Your task to perform on an android device: change the clock display to show seconds Image 0: 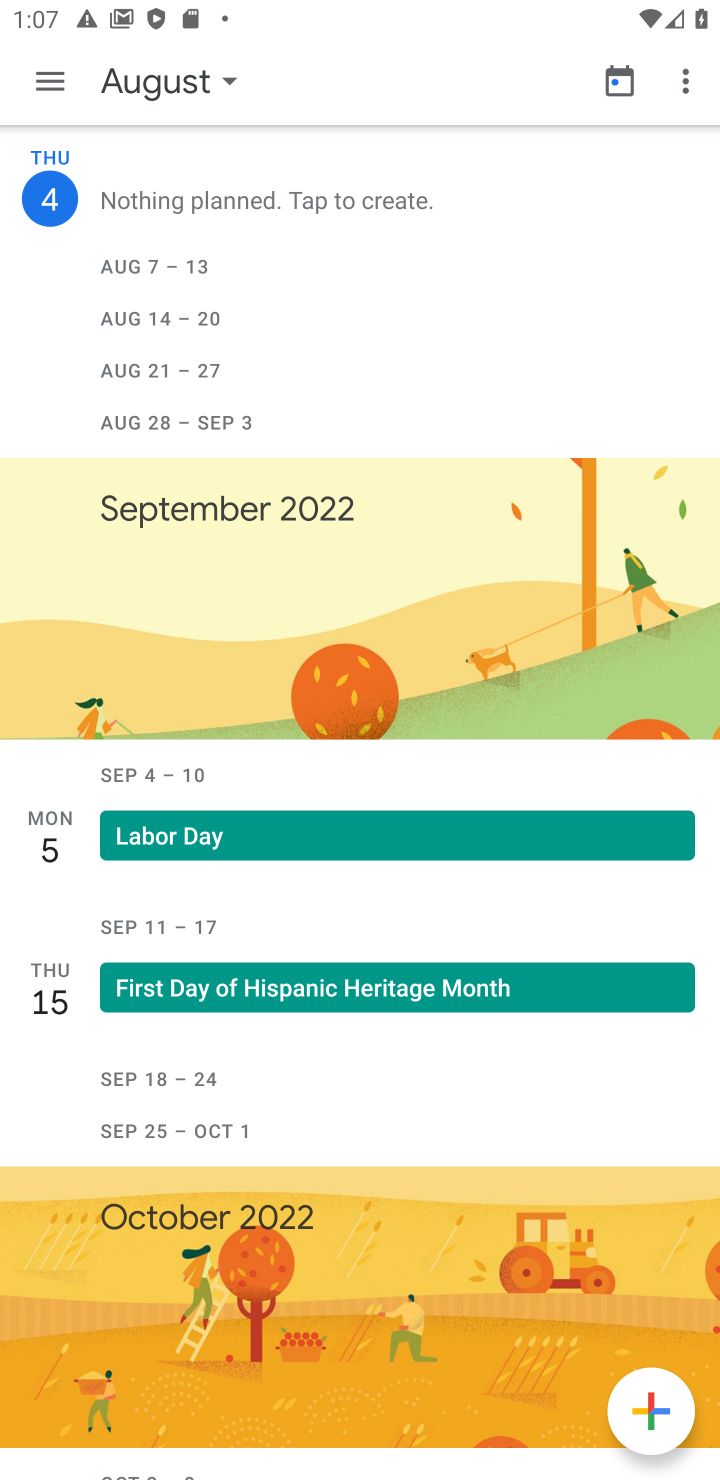
Step 0: press home button
Your task to perform on an android device: change the clock display to show seconds Image 1: 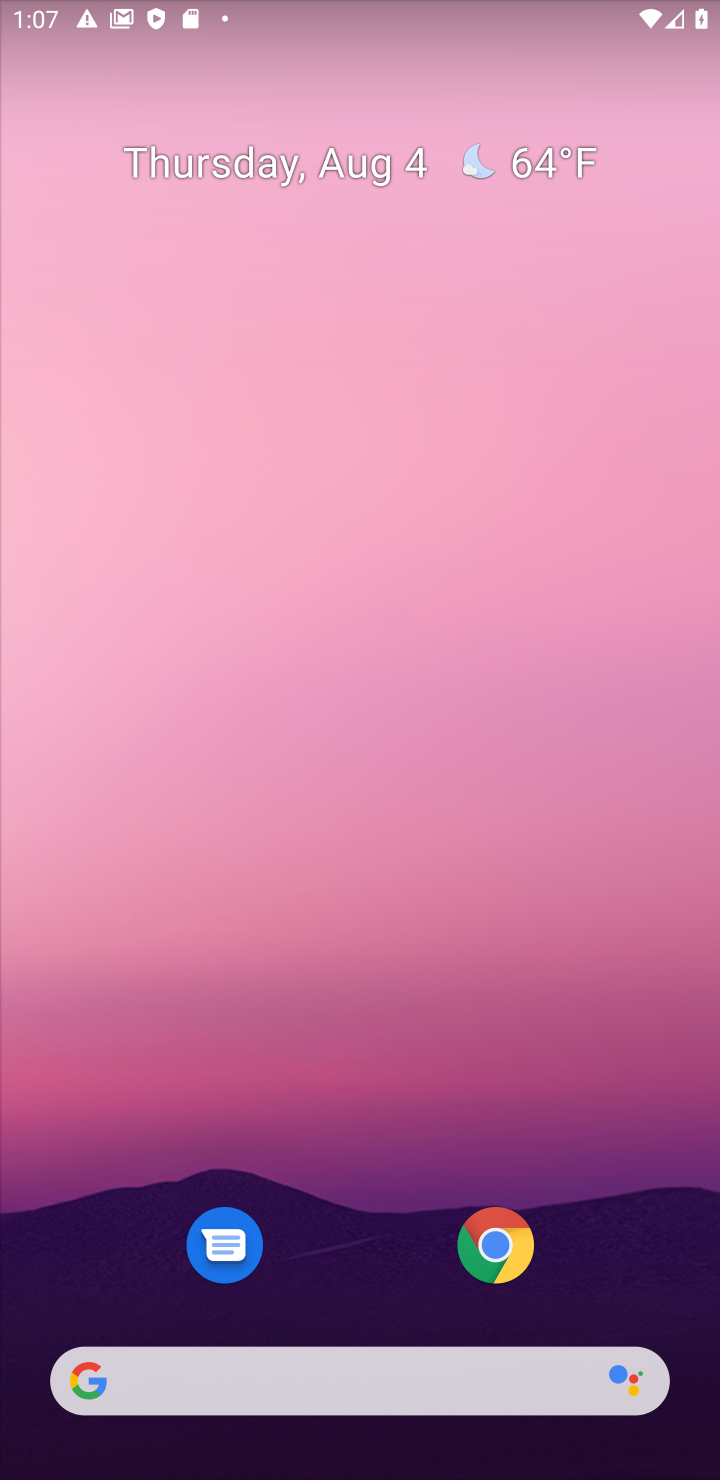
Step 1: drag from (337, 1011) to (259, 266)
Your task to perform on an android device: change the clock display to show seconds Image 2: 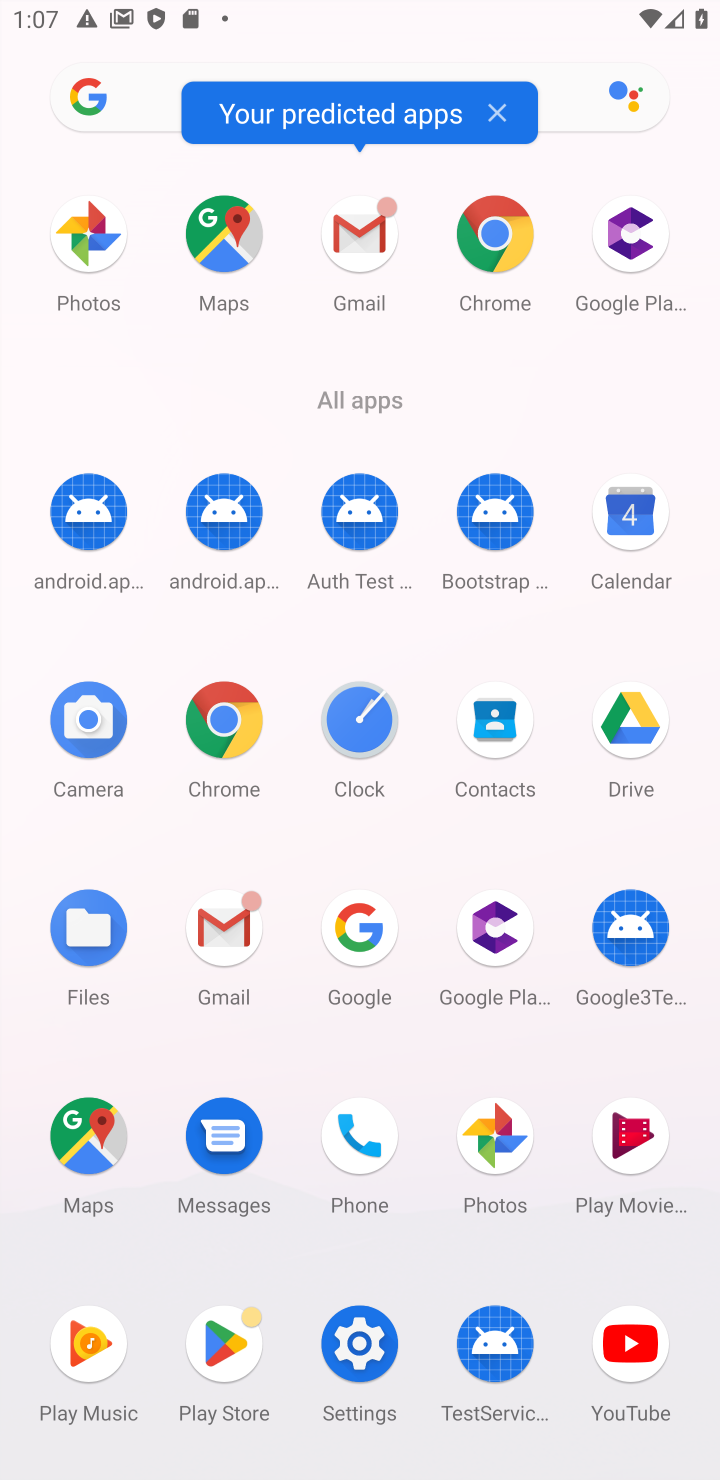
Step 2: click (376, 730)
Your task to perform on an android device: change the clock display to show seconds Image 3: 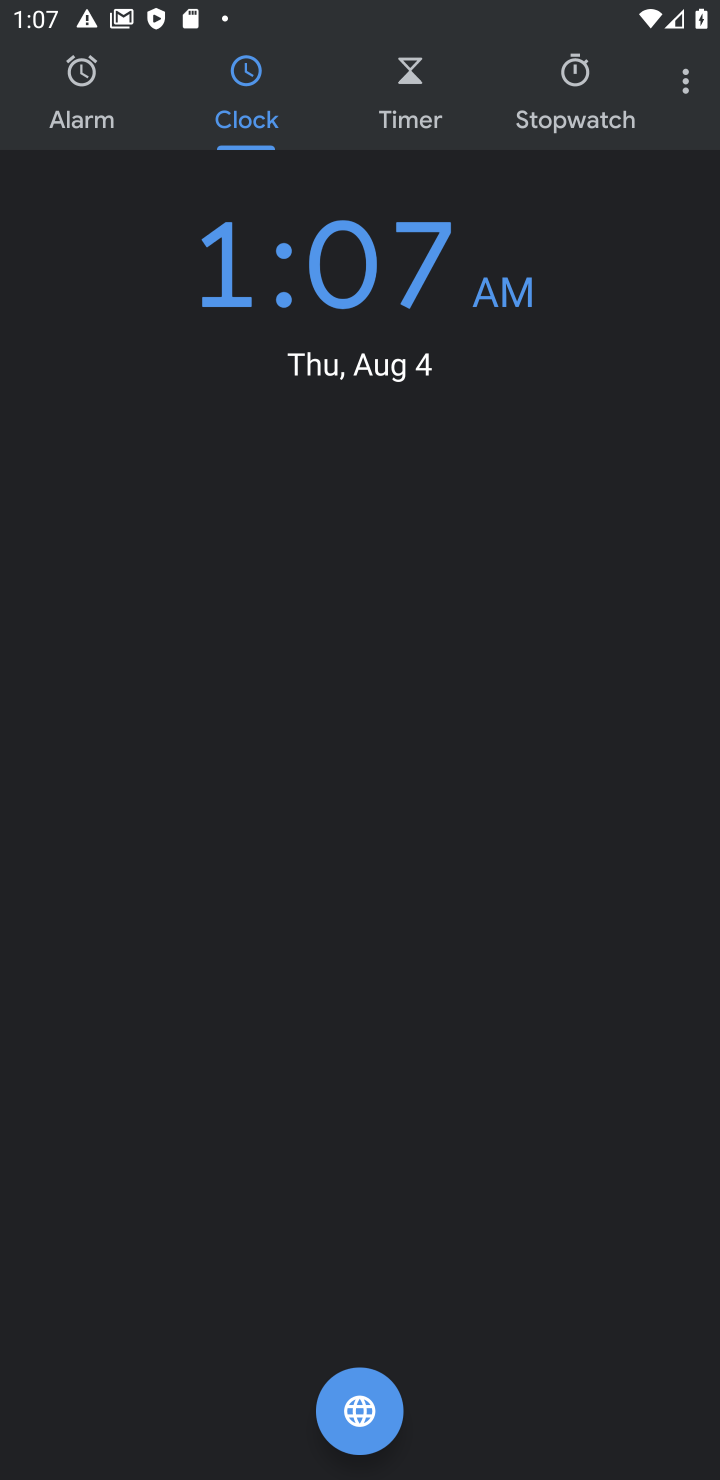
Step 3: click (687, 89)
Your task to perform on an android device: change the clock display to show seconds Image 4: 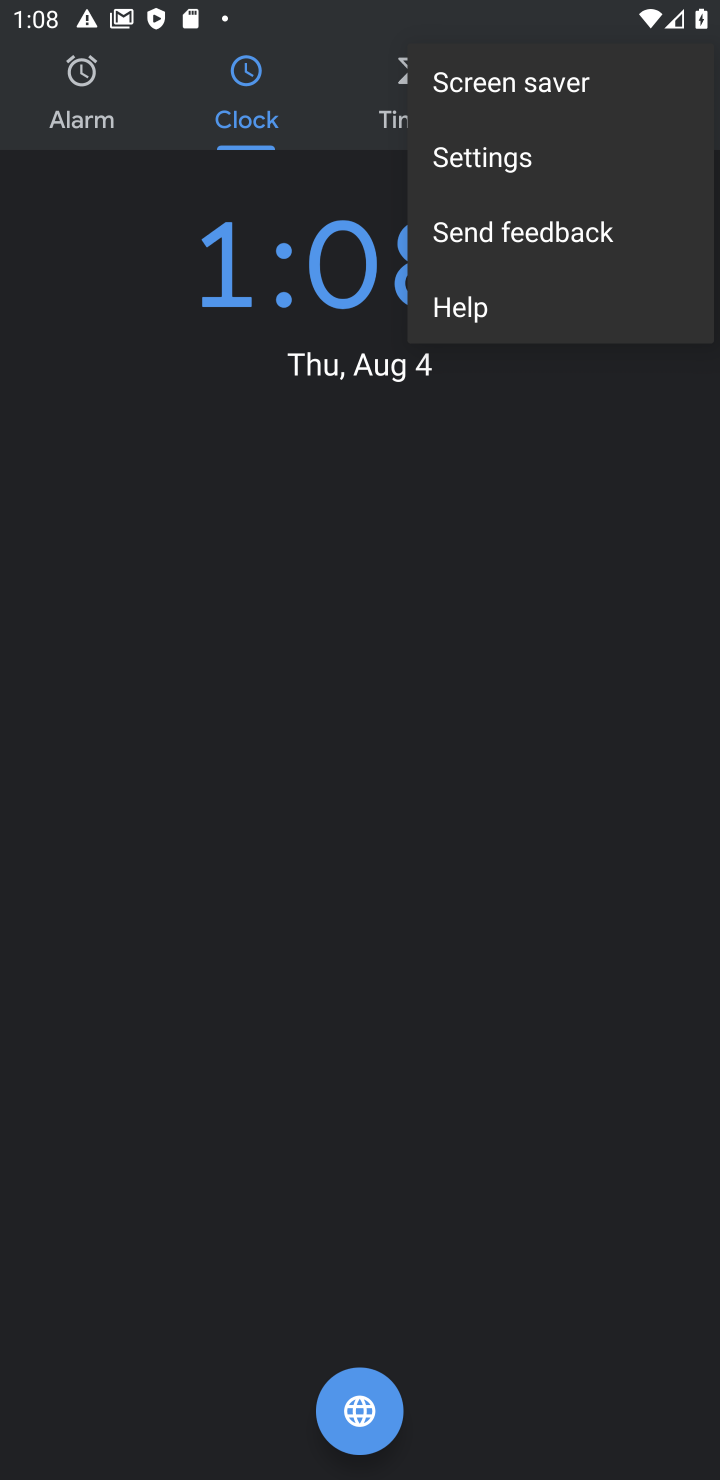
Step 4: click (530, 172)
Your task to perform on an android device: change the clock display to show seconds Image 5: 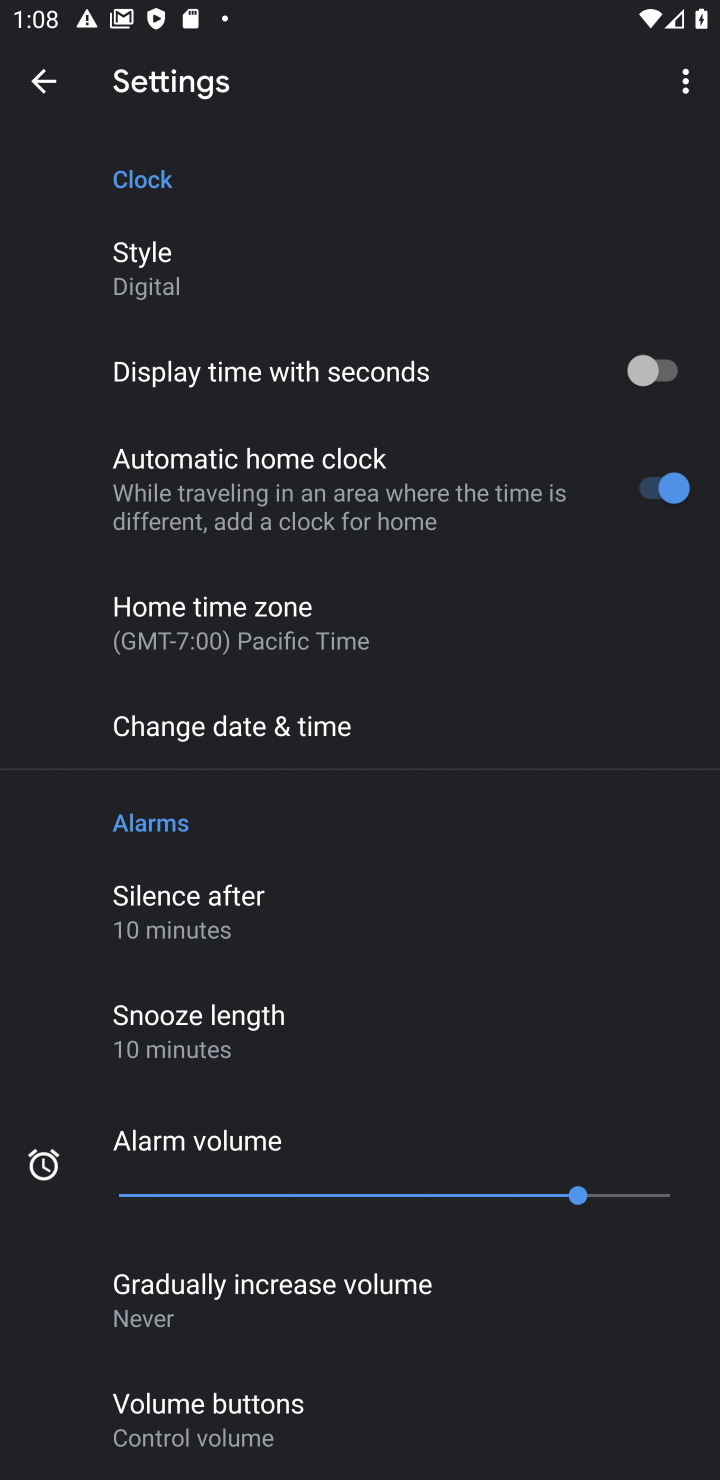
Step 5: click (663, 356)
Your task to perform on an android device: change the clock display to show seconds Image 6: 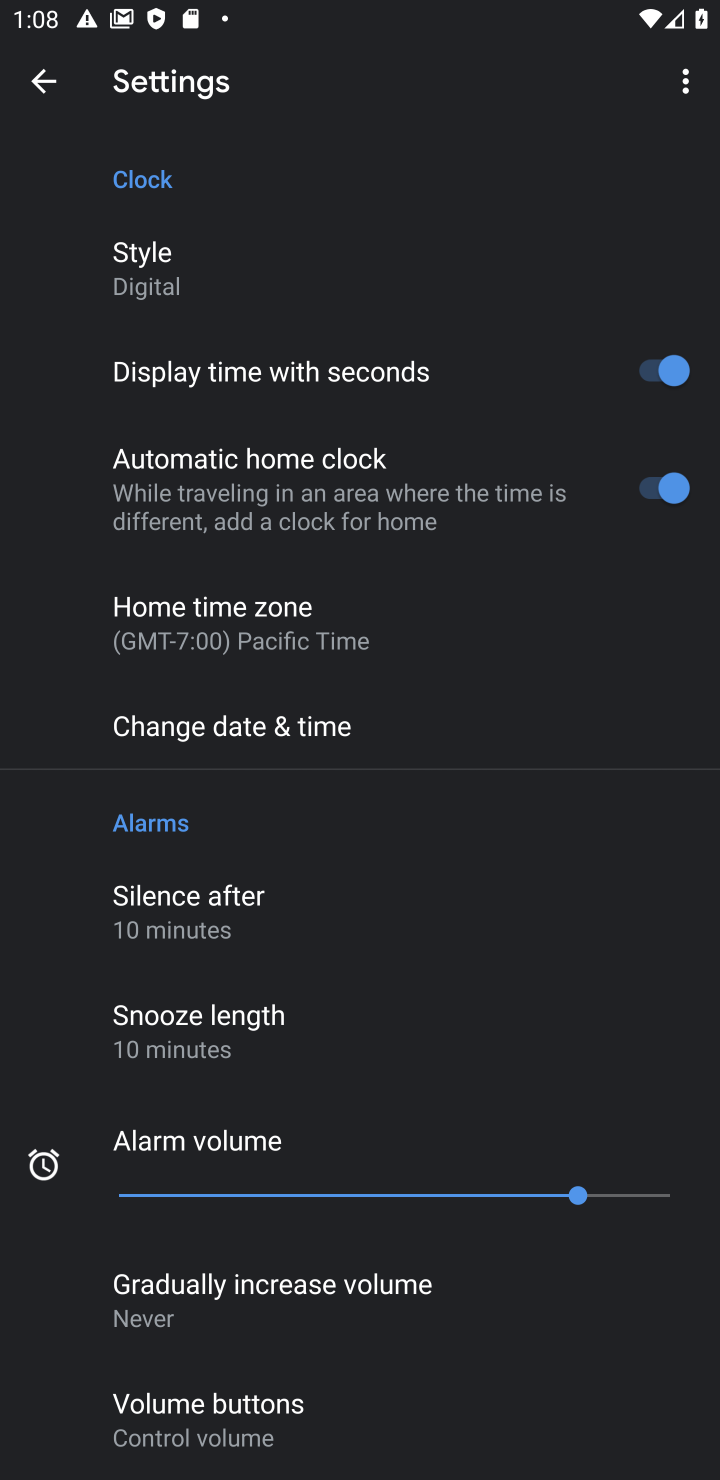
Step 6: task complete